Your task to perform on an android device: turn off location history Image 0: 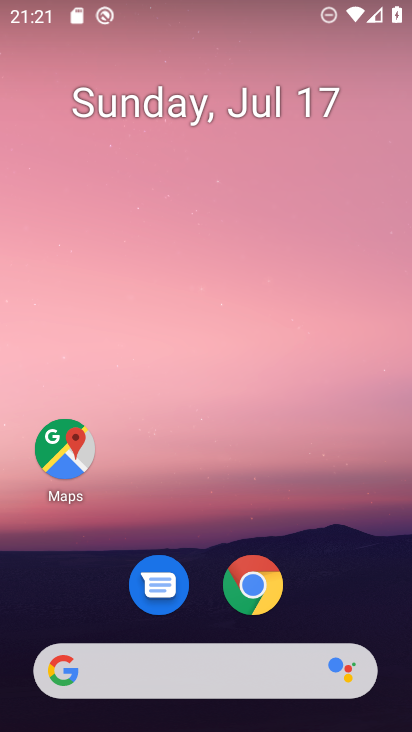
Step 0: click (51, 449)
Your task to perform on an android device: turn off location history Image 1: 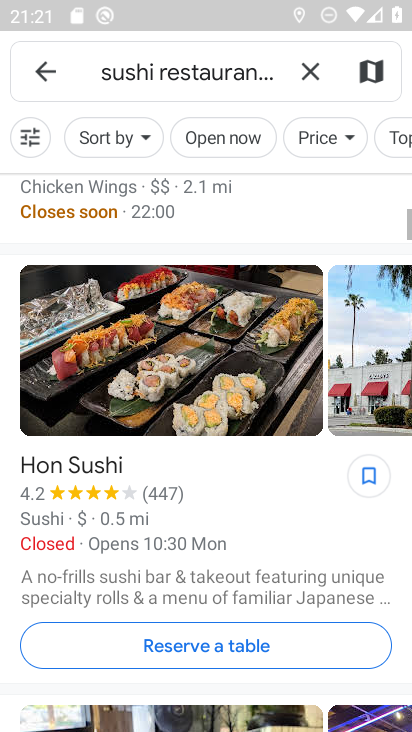
Step 1: click (39, 75)
Your task to perform on an android device: turn off location history Image 2: 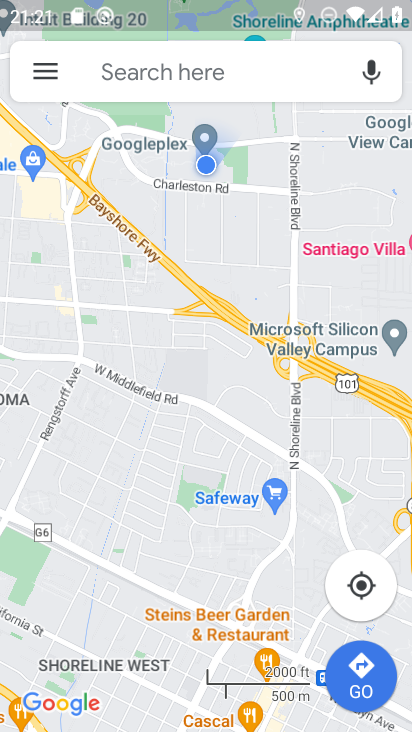
Step 2: click (44, 66)
Your task to perform on an android device: turn off location history Image 3: 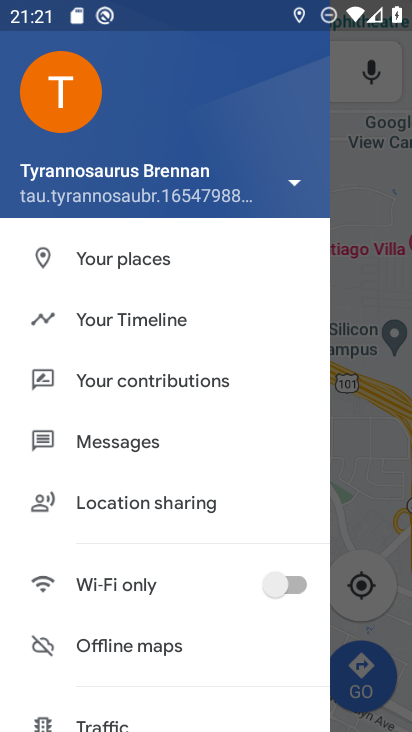
Step 3: click (133, 323)
Your task to perform on an android device: turn off location history Image 4: 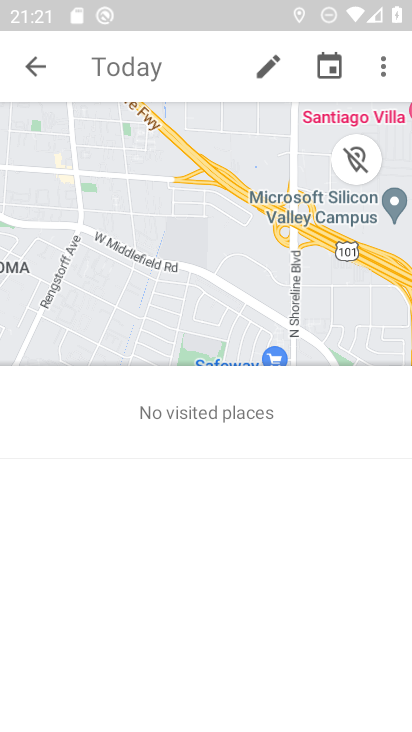
Step 4: click (381, 72)
Your task to perform on an android device: turn off location history Image 5: 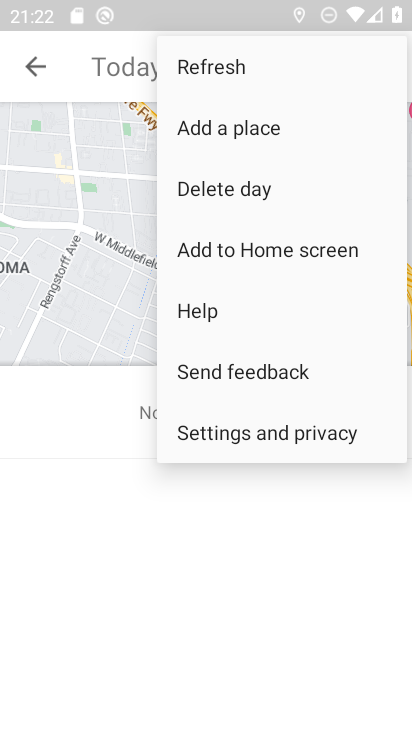
Step 5: click (250, 431)
Your task to perform on an android device: turn off location history Image 6: 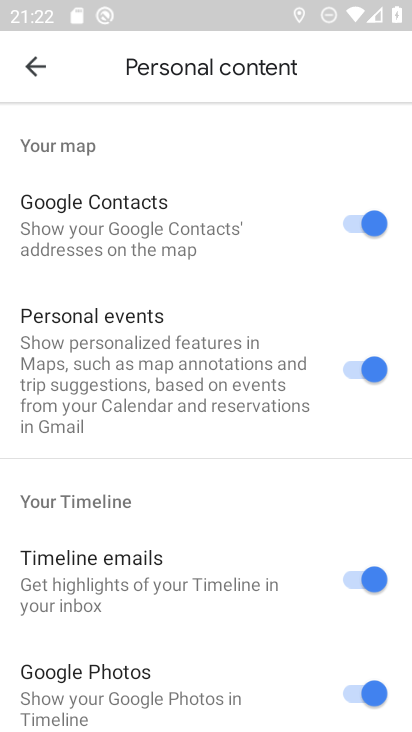
Step 6: drag from (224, 552) to (352, 161)
Your task to perform on an android device: turn off location history Image 7: 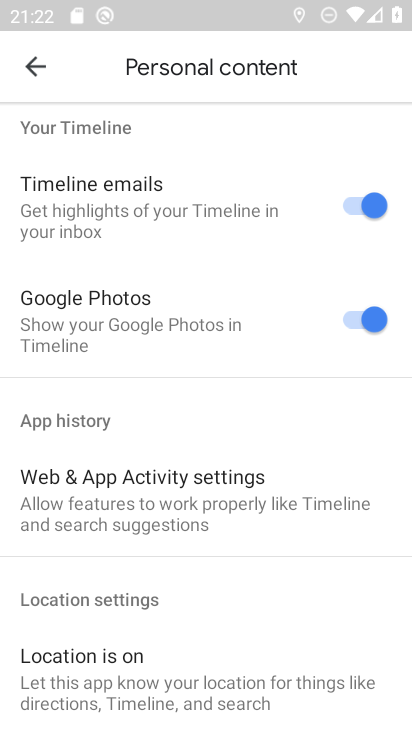
Step 7: drag from (229, 590) to (327, 222)
Your task to perform on an android device: turn off location history Image 8: 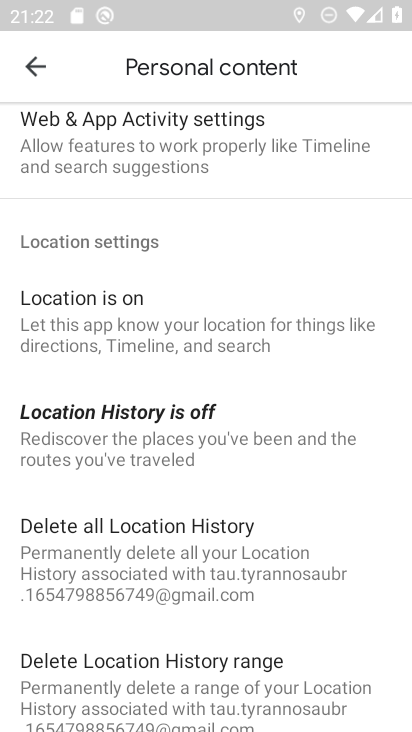
Step 8: click (203, 416)
Your task to perform on an android device: turn off location history Image 9: 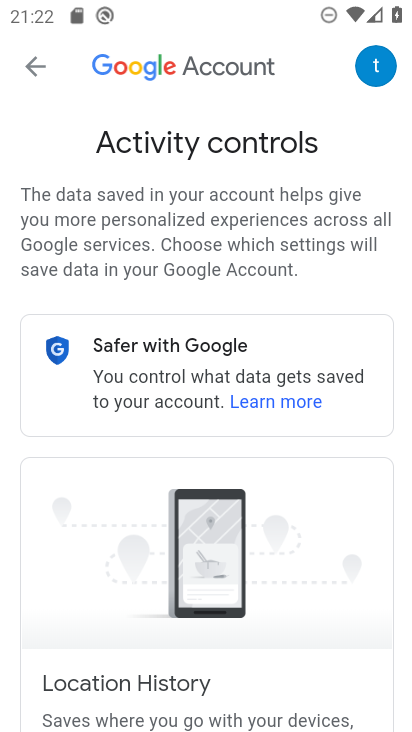
Step 9: task complete